Your task to perform on an android device: find photos in the google photos app Image 0: 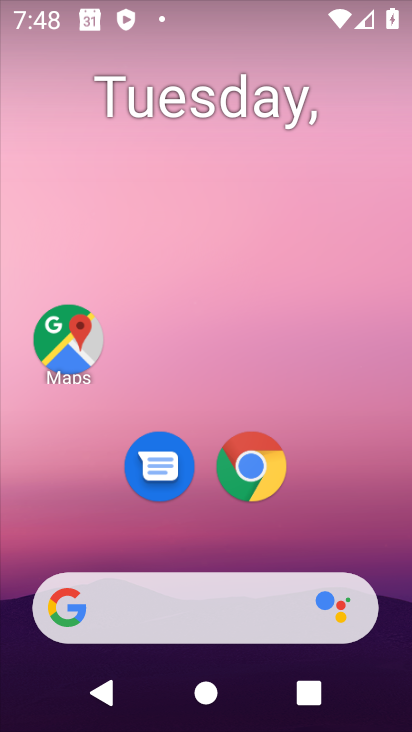
Step 0: drag from (47, 473) to (233, 163)
Your task to perform on an android device: find photos in the google photos app Image 1: 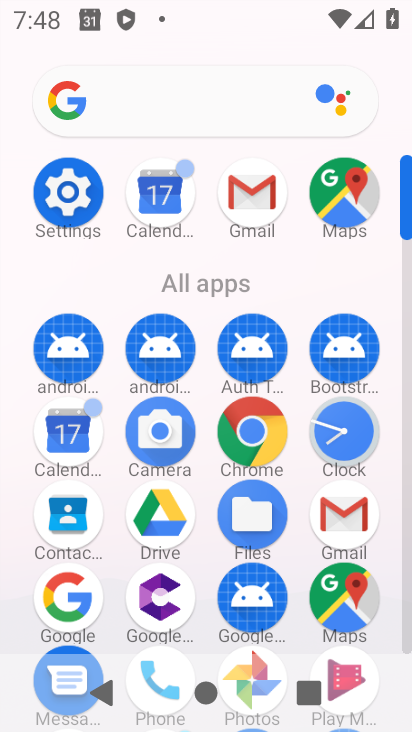
Step 1: drag from (97, 430) to (212, 222)
Your task to perform on an android device: find photos in the google photos app Image 2: 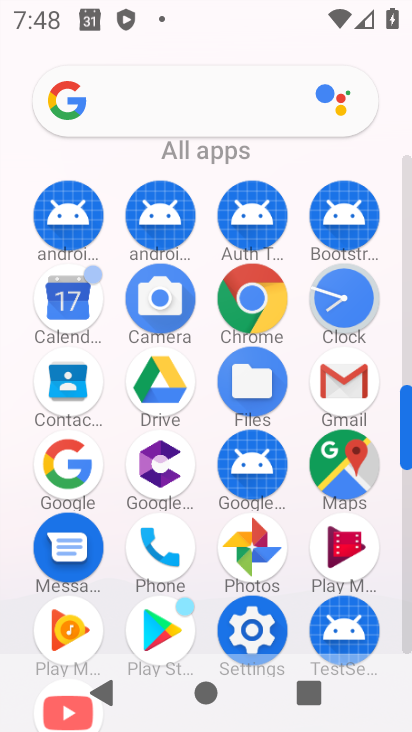
Step 2: click (251, 554)
Your task to perform on an android device: find photos in the google photos app Image 3: 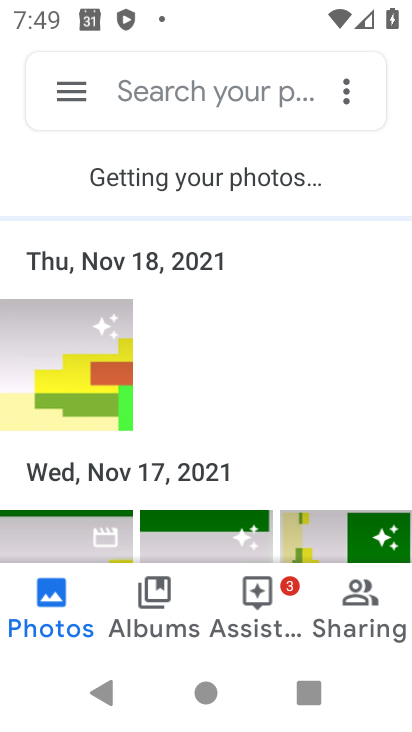
Step 3: task complete